Your task to perform on an android device: add a contact in the contacts app Image 0: 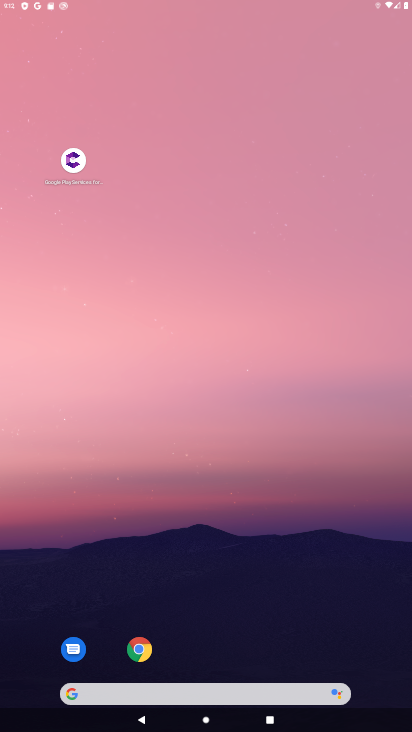
Step 0: drag from (160, 648) to (167, 139)
Your task to perform on an android device: add a contact in the contacts app Image 1: 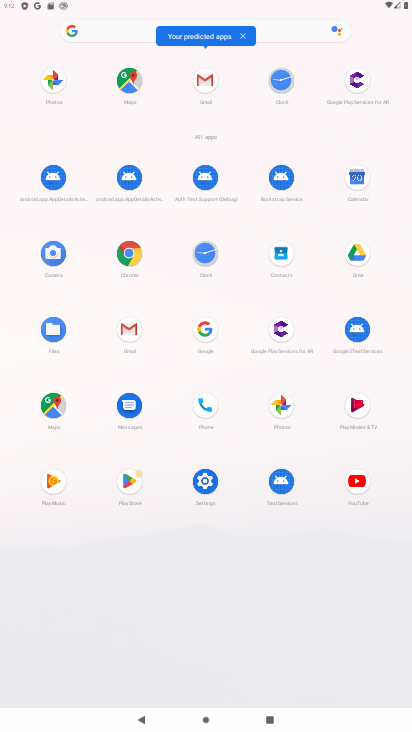
Step 1: click (199, 473)
Your task to perform on an android device: add a contact in the contacts app Image 2: 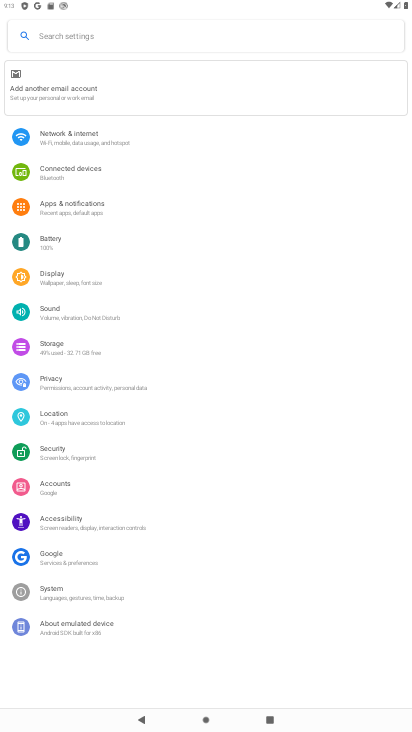
Step 2: click (61, 526)
Your task to perform on an android device: add a contact in the contacts app Image 3: 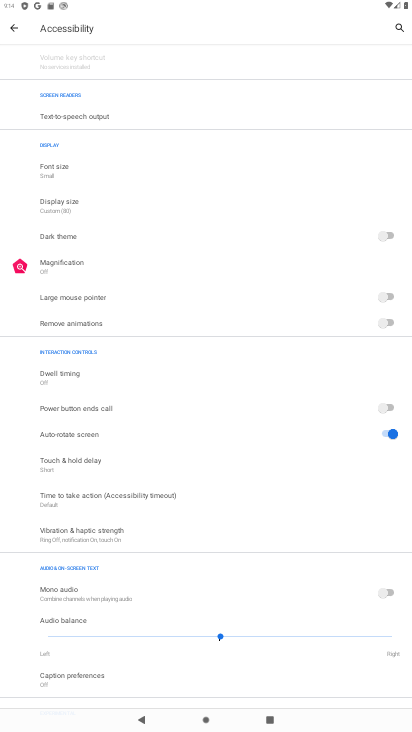
Step 3: click (40, 172)
Your task to perform on an android device: add a contact in the contacts app Image 4: 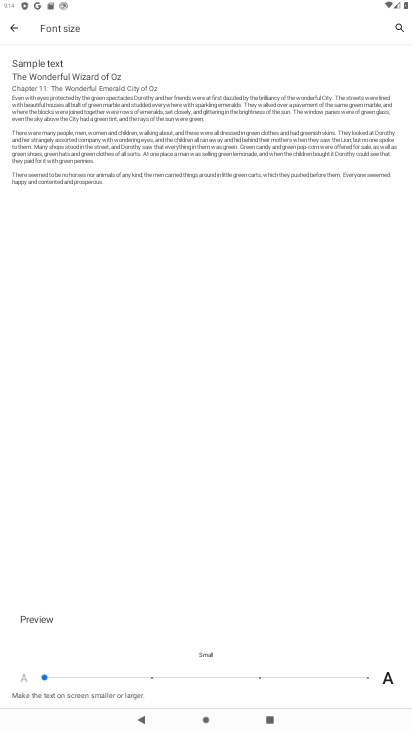
Step 4: click (160, 677)
Your task to perform on an android device: add a contact in the contacts app Image 5: 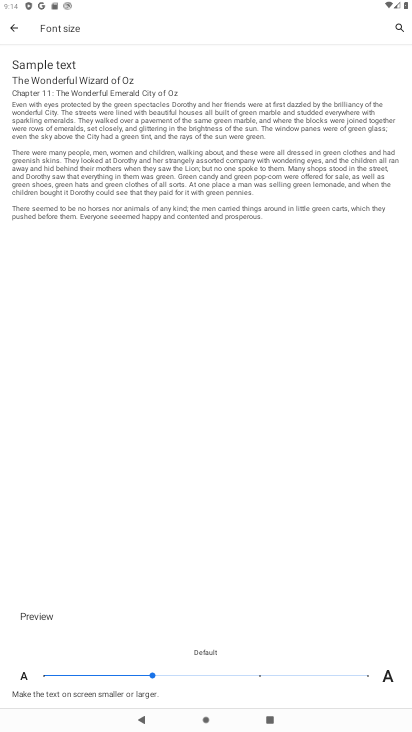
Step 5: click (132, 670)
Your task to perform on an android device: add a contact in the contacts app Image 6: 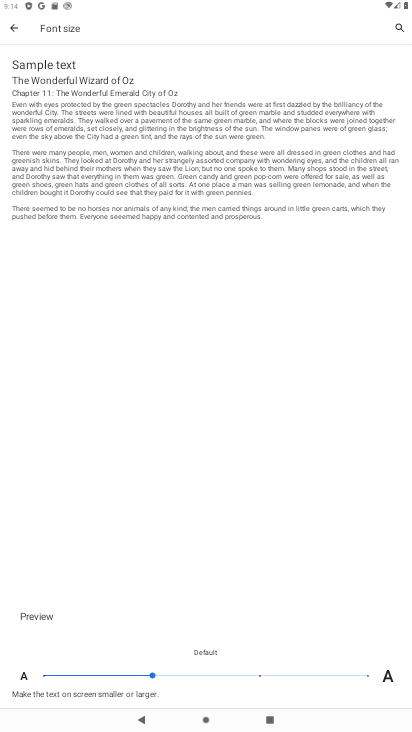
Step 6: click (19, 27)
Your task to perform on an android device: add a contact in the contacts app Image 7: 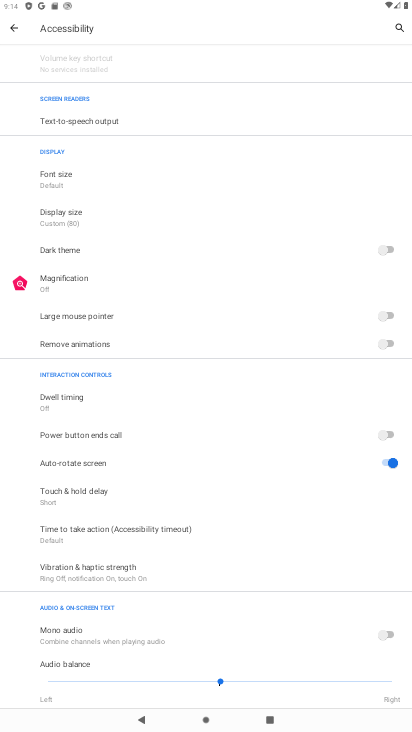
Step 7: click (36, 220)
Your task to perform on an android device: add a contact in the contacts app Image 8: 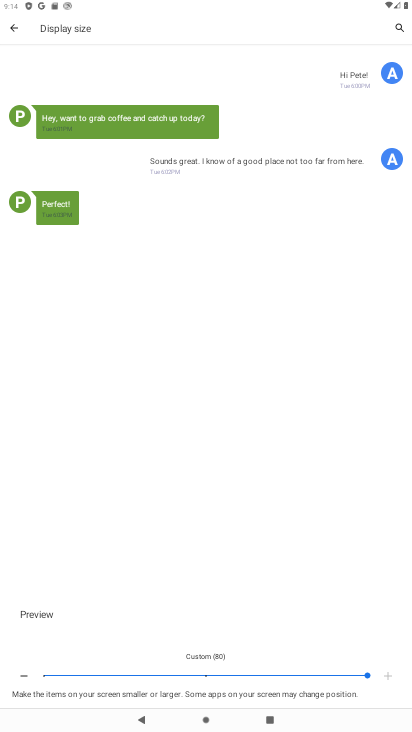
Step 8: click (286, 676)
Your task to perform on an android device: add a contact in the contacts app Image 9: 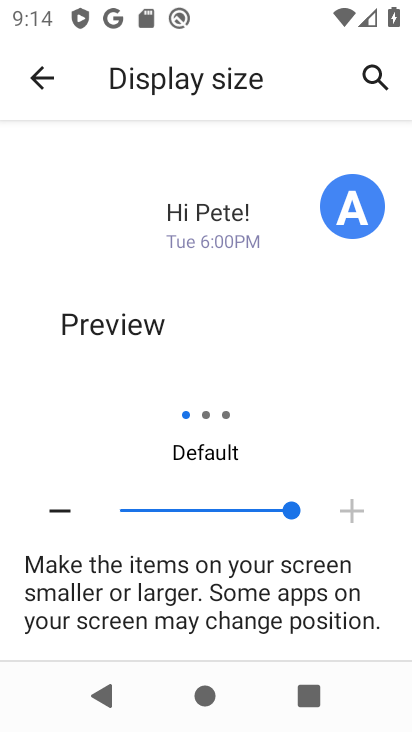
Step 9: task complete